Your task to perform on an android device: change text size in settings app Image 0: 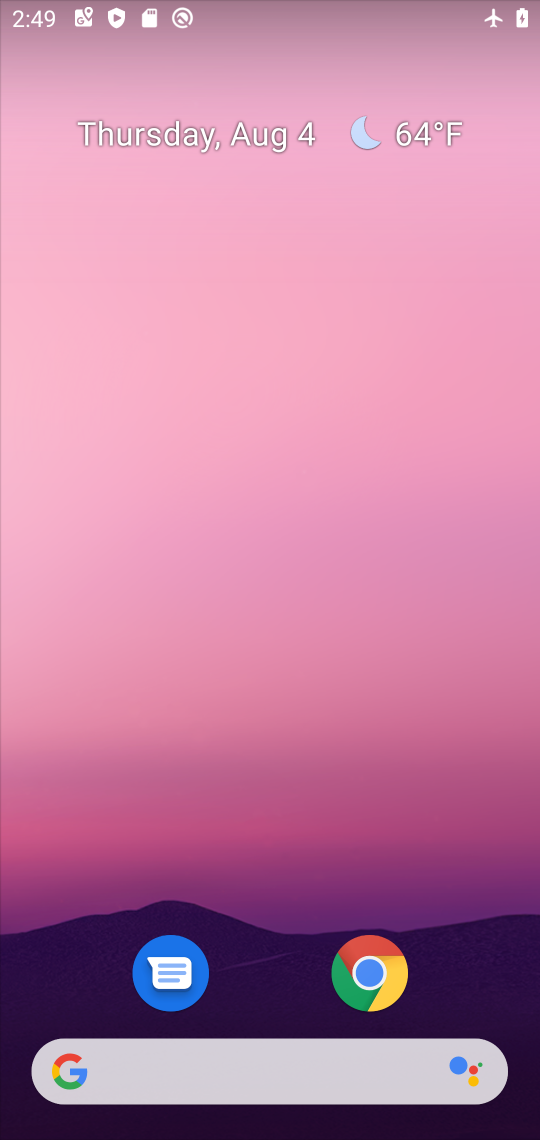
Step 0: drag from (266, 978) to (183, 200)
Your task to perform on an android device: change text size in settings app Image 1: 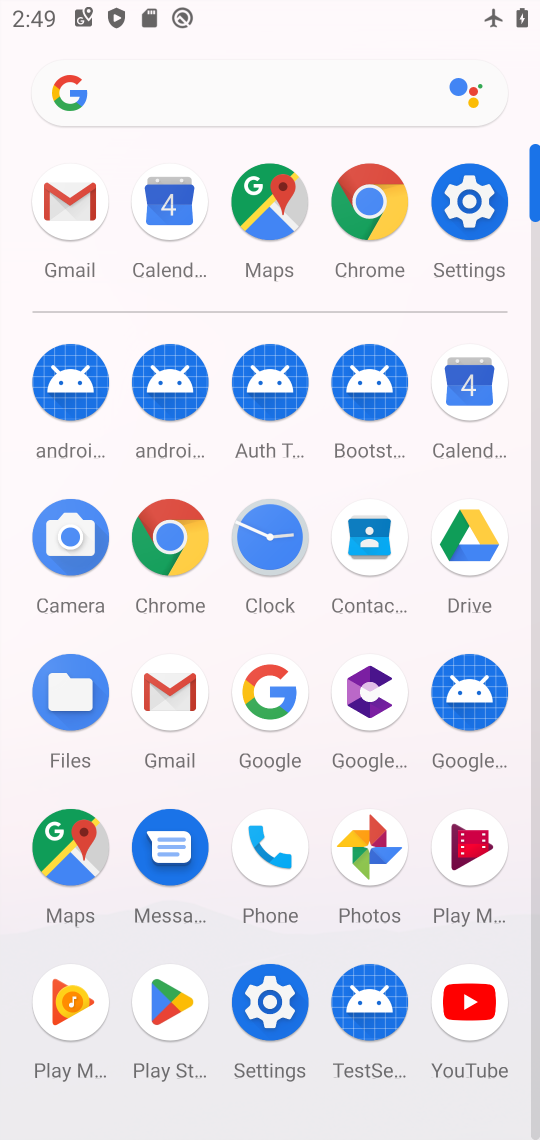
Step 1: click (268, 1011)
Your task to perform on an android device: change text size in settings app Image 2: 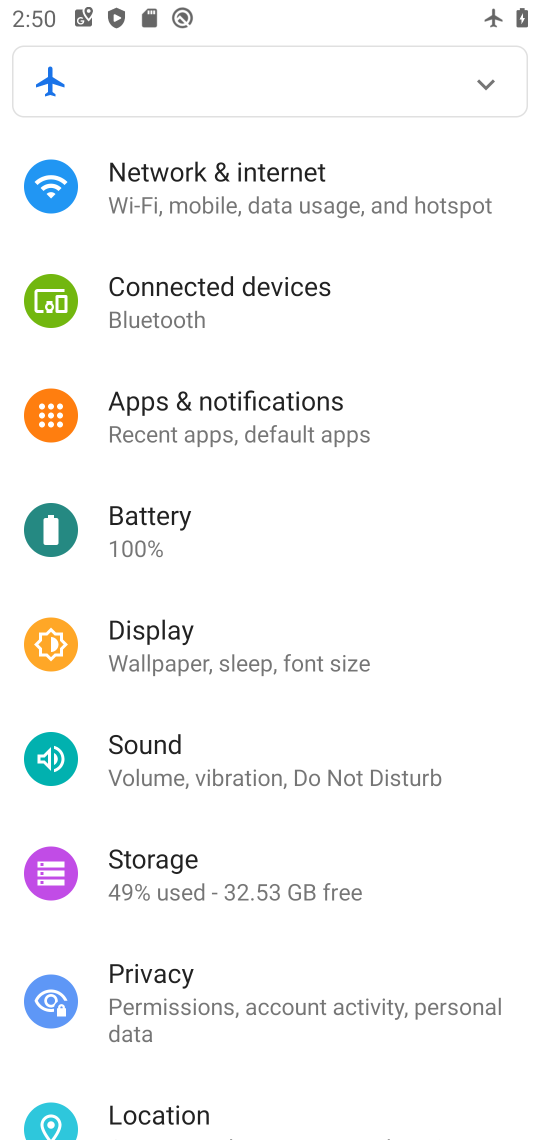
Step 2: click (197, 666)
Your task to perform on an android device: change text size in settings app Image 3: 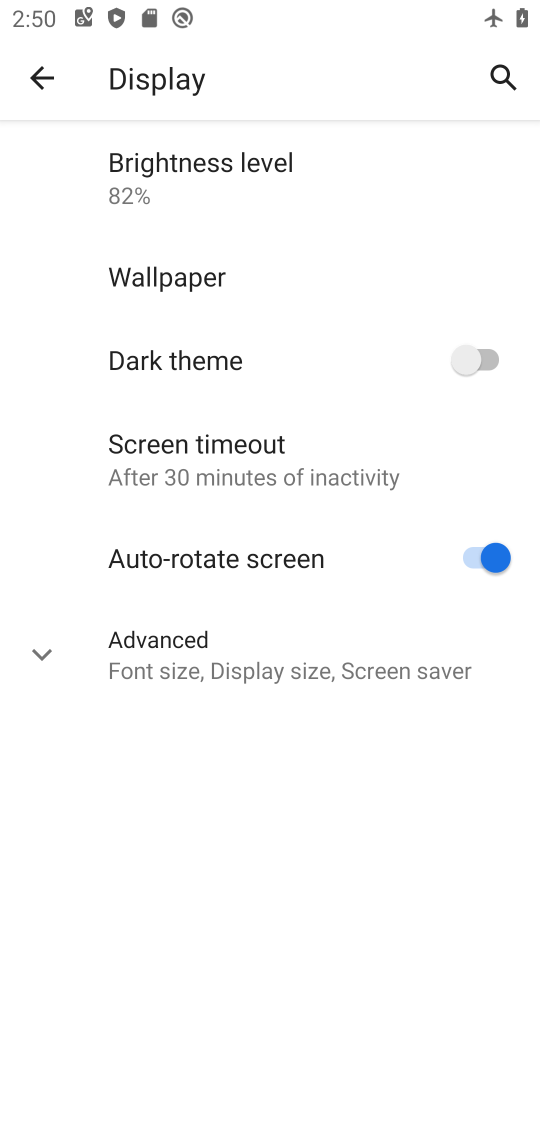
Step 3: click (285, 673)
Your task to perform on an android device: change text size in settings app Image 4: 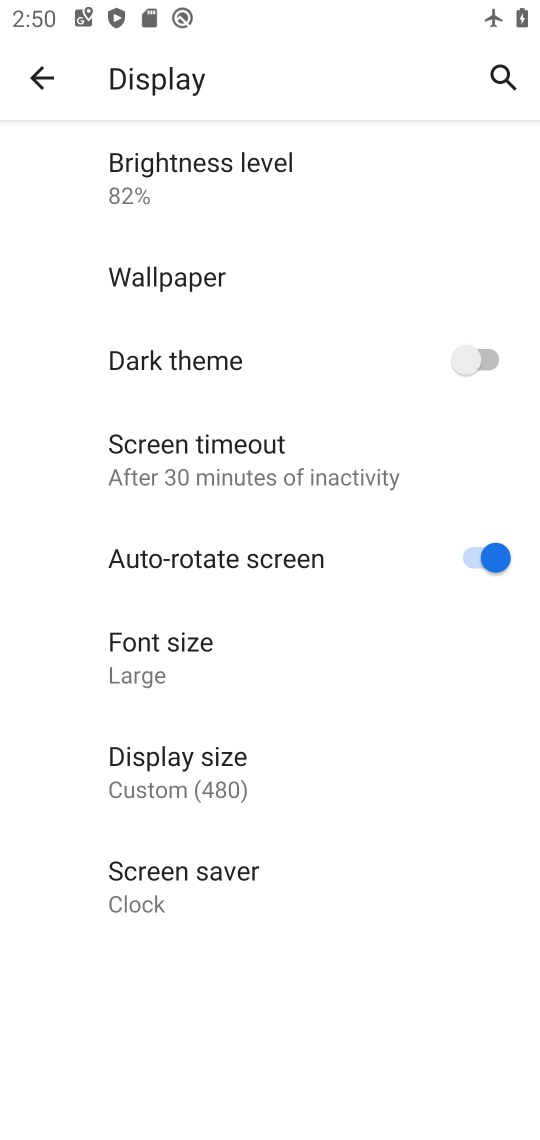
Step 4: click (155, 674)
Your task to perform on an android device: change text size in settings app Image 5: 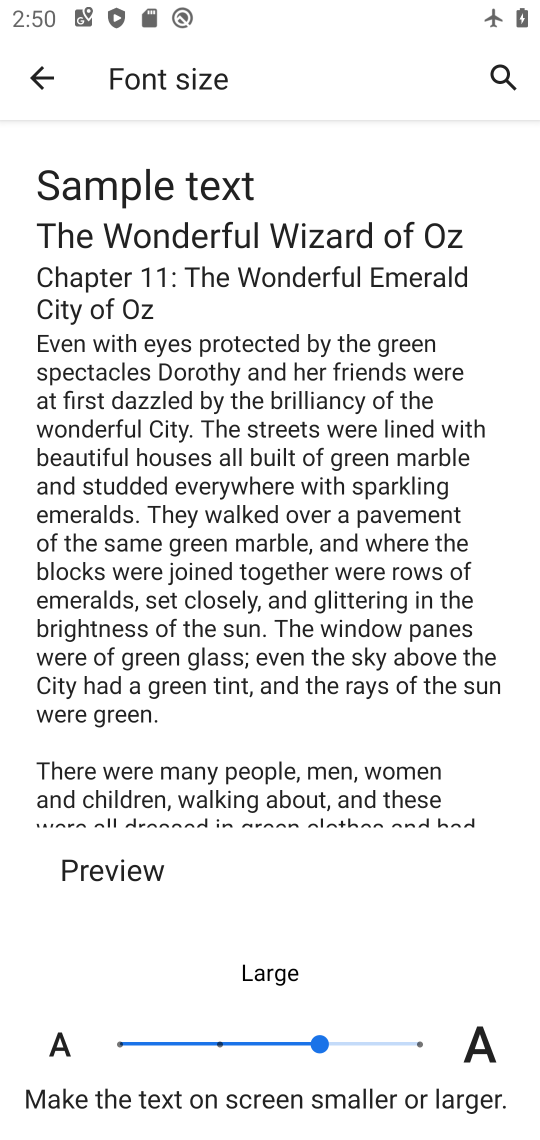
Step 5: click (224, 1043)
Your task to perform on an android device: change text size in settings app Image 6: 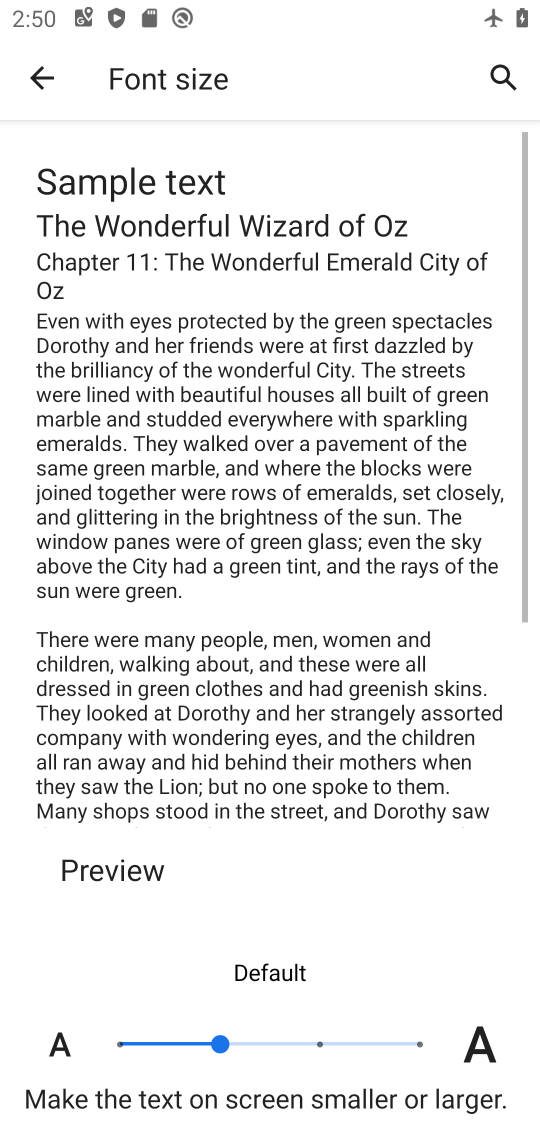
Step 6: task complete